Your task to perform on an android device: turn on improve location accuracy Image 0: 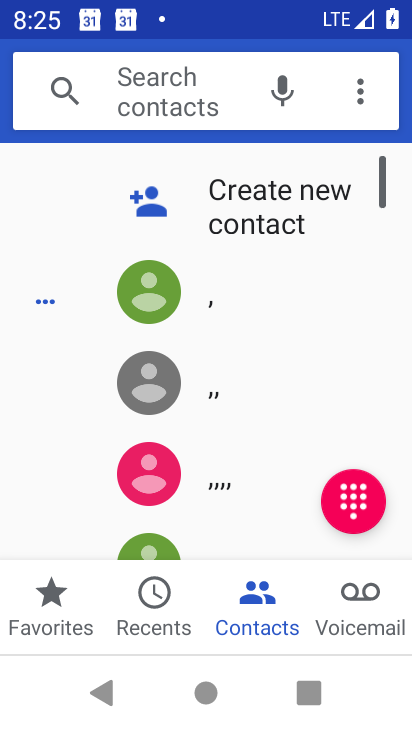
Step 0: press home button
Your task to perform on an android device: turn on improve location accuracy Image 1: 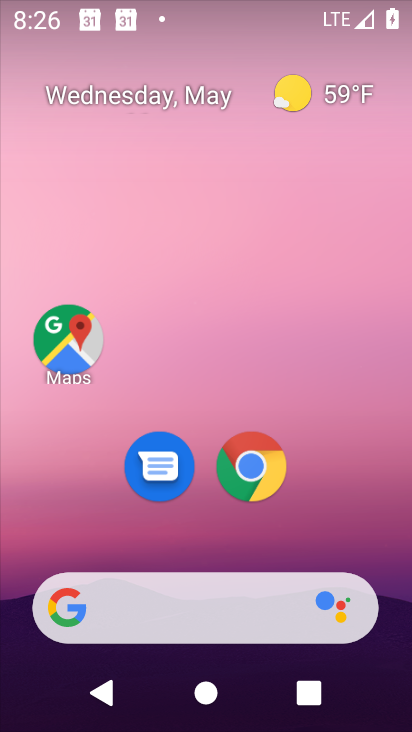
Step 1: drag from (311, 527) to (367, 227)
Your task to perform on an android device: turn on improve location accuracy Image 2: 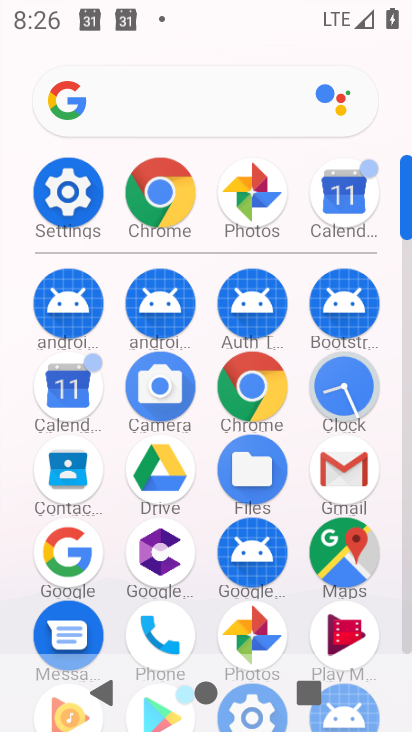
Step 2: click (44, 175)
Your task to perform on an android device: turn on improve location accuracy Image 3: 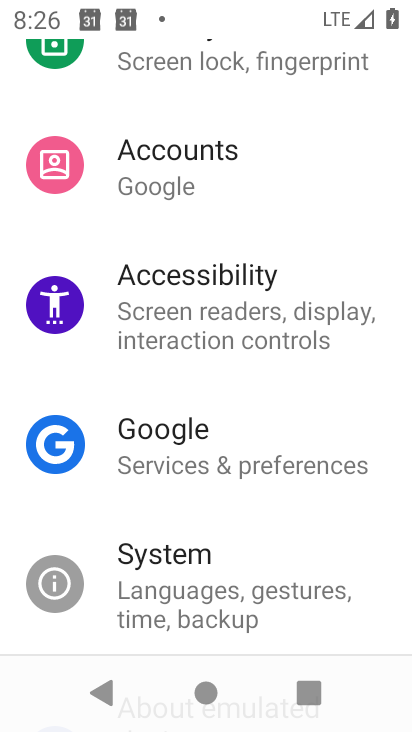
Step 3: drag from (241, 195) to (258, 579)
Your task to perform on an android device: turn on improve location accuracy Image 4: 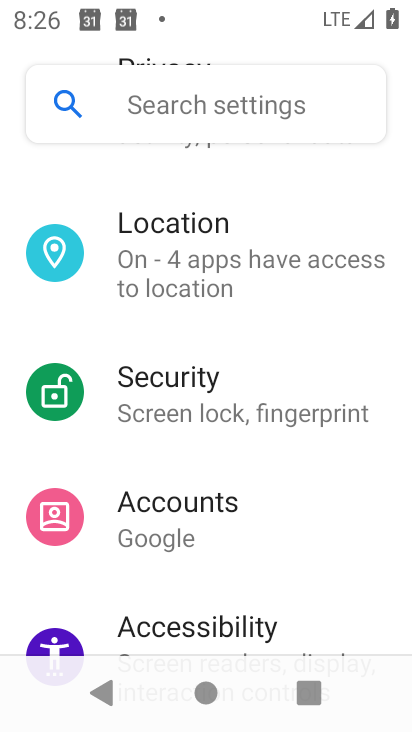
Step 4: click (156, 233)
Your task to perform on an android device: turn on improve location accuracy Image 5: 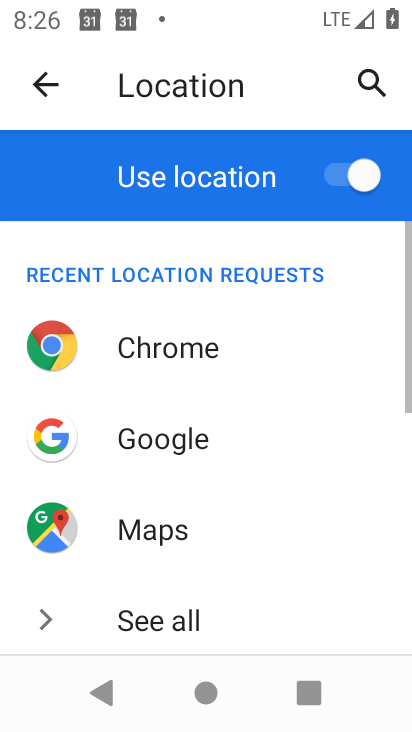
Step 5: drag from (207, 599) to (238, 175)
Your task to perform on an android device: turn on improve location accuracy Image 6: 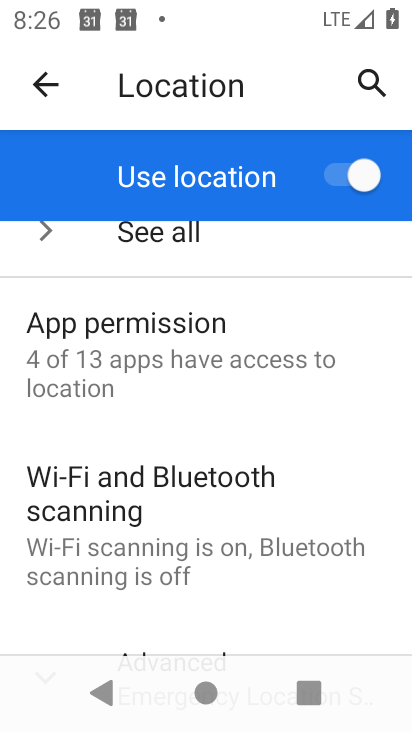
Step 6: click (126, 374)
Your task to perform on an android device: turn on improve location accuracy Image 7: 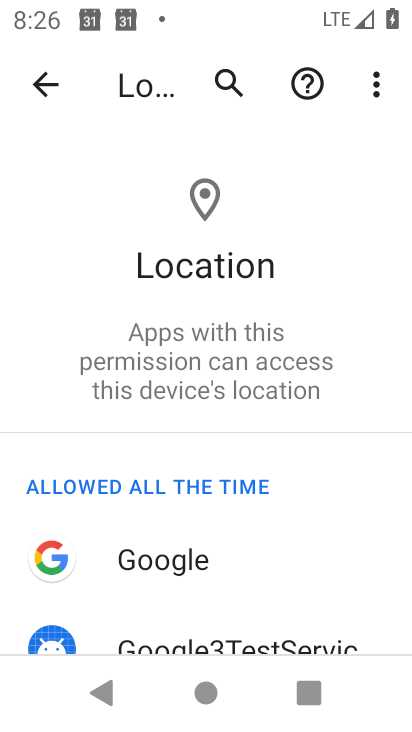
Step 7: click (59, 81)
Your task to perform on an android device: turn on improve location accuracy Image 8: 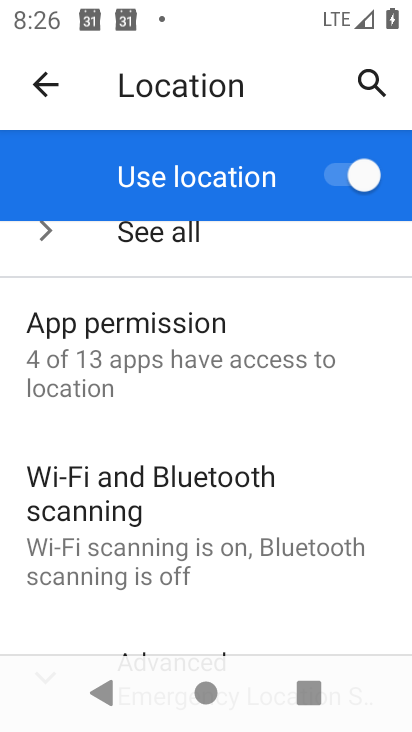
Step 8: drag from (176, 356) to (242, 222)
Your task to perform on an android device: turn on improve location accuracy Image 9: 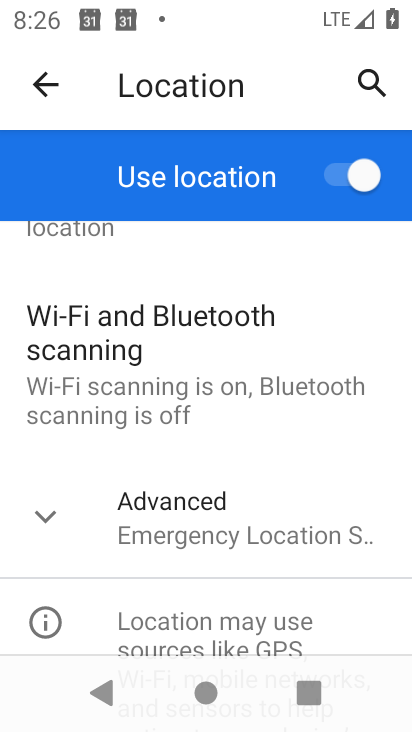
Step 9: click (192, 529)
Your task to perform on an android device: turn on improve location accuracy Image 10: 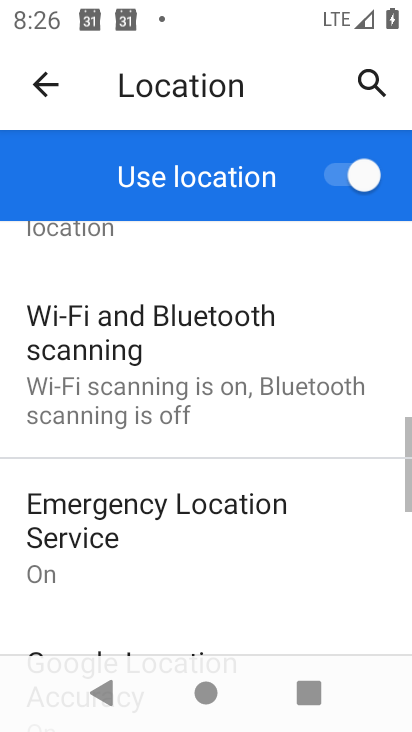
Step 10: drag from (209, 589) to (220, 302)
Your task to perform on an android device: turn on improve location accuracy Image 11: 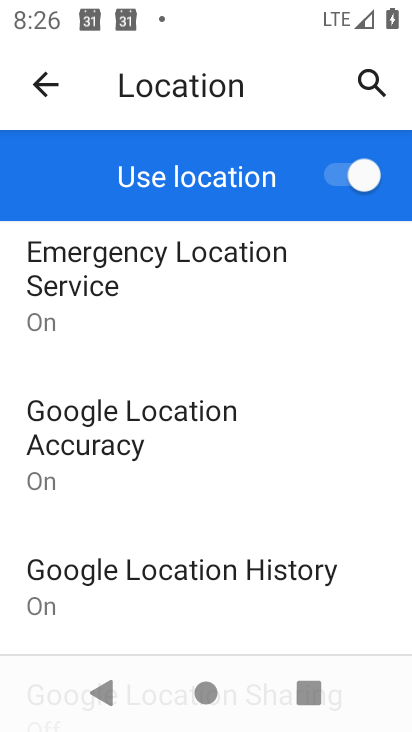
Step 11: click (111, 455)
Your task to perform on an android device: turn on improve location accuracy Image 12: 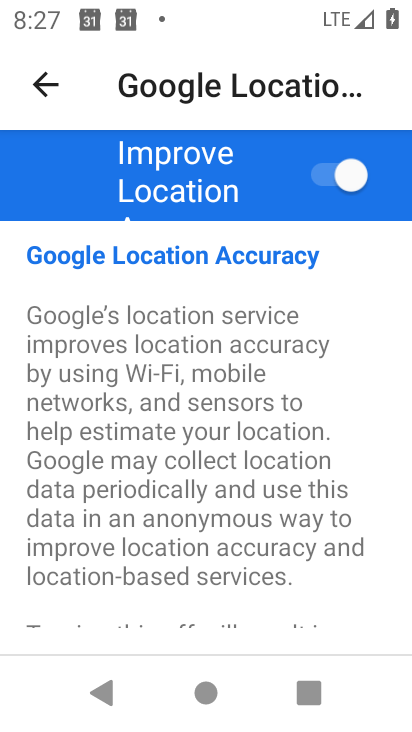
Step 12: task complete